Your task to perform on an android device: star an email in the gmail app Image 0: 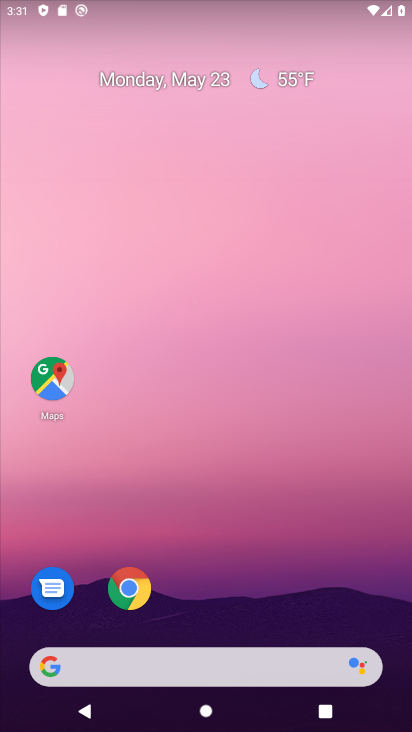
Step 0: drag from (232, 601) to (193, 127)
Your task to perform on an android device: star an email in the gmail app Image 1: 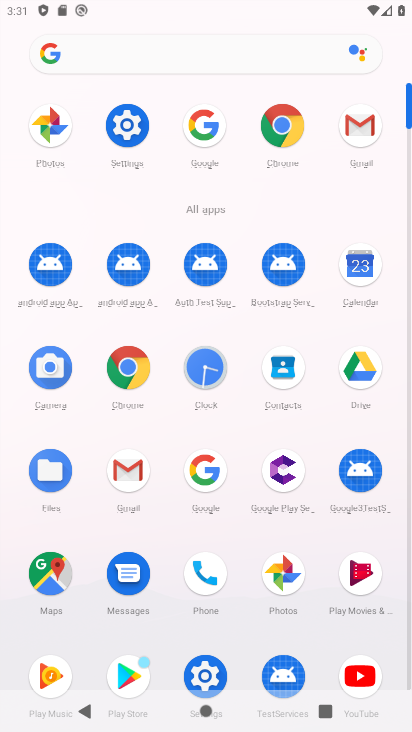
Step 1: click (355, 126)
Your task to perform on an android device: star an email in the gmail app Image 2: 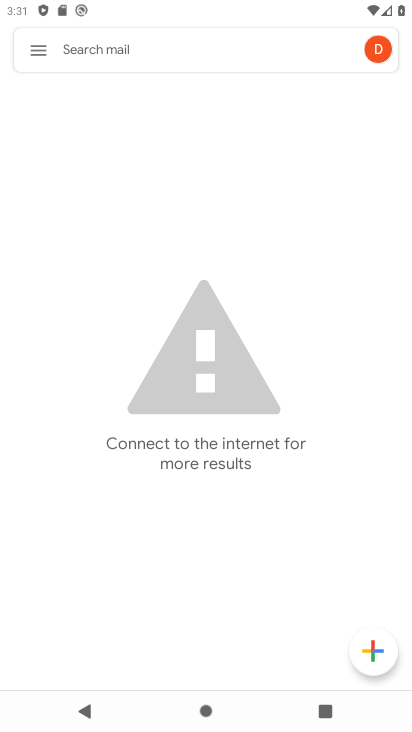
Step 2: click (44, 51)
Your task to perform on an android device: star an email in the gmail app Image 3: 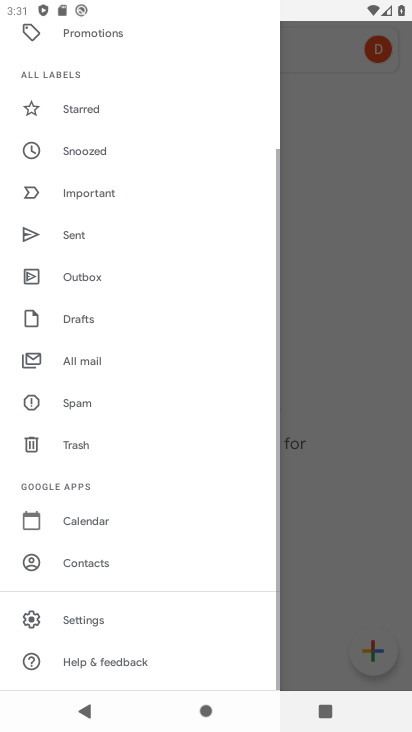
Step 3: click (90, 357)
Your task to perform on an android device: star an email in the gmail app Image 4: 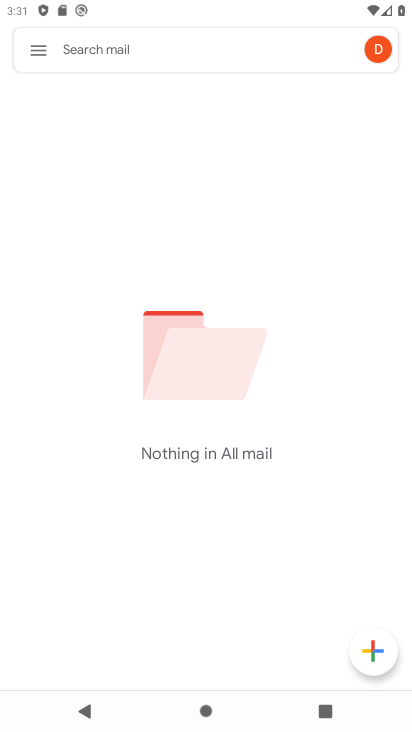
Step 4: task complete